Your task to perform on an android device: Turn off the flashlight Image 0: 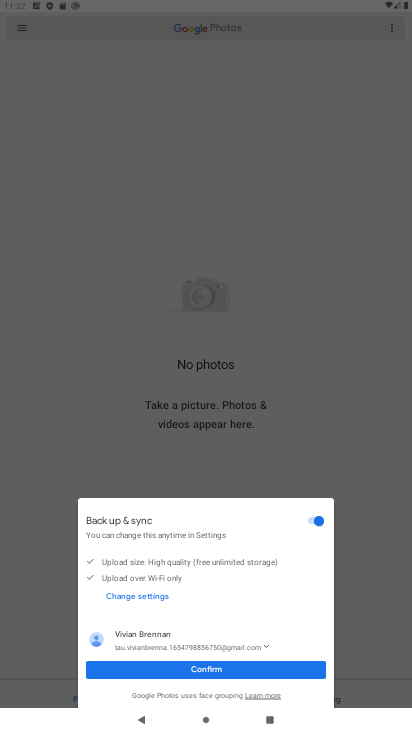
Step 0: task impossible